Your task to perform on an android device: Open the map Image 0: 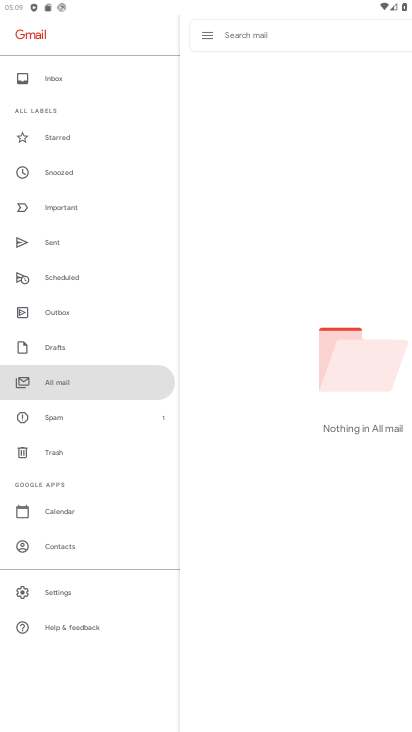
Step 0: press home button
Your task to perform on an android device: Open the map Image 1: 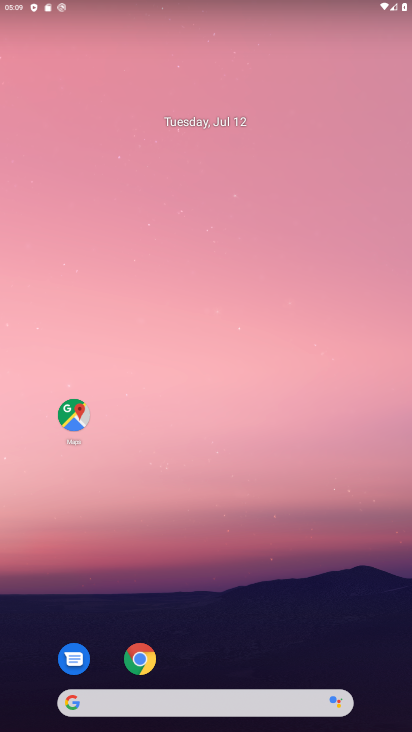
Step 1: click (71, 412)
Your task to perform on an android device: Open the map Image 2: 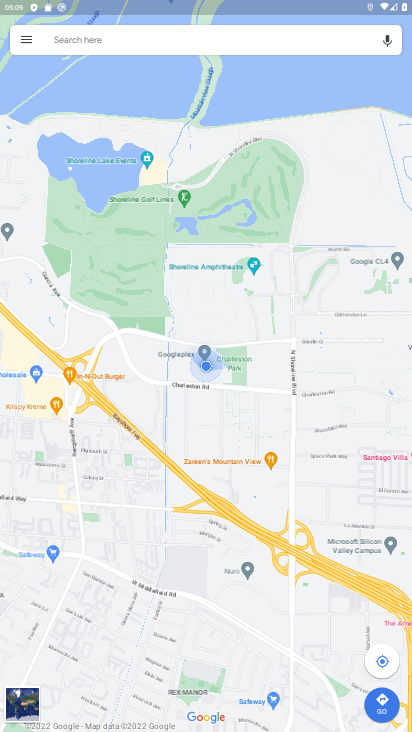
Step 2: task complete